Your task to perform on an android device: Open wifi settings Image 0: 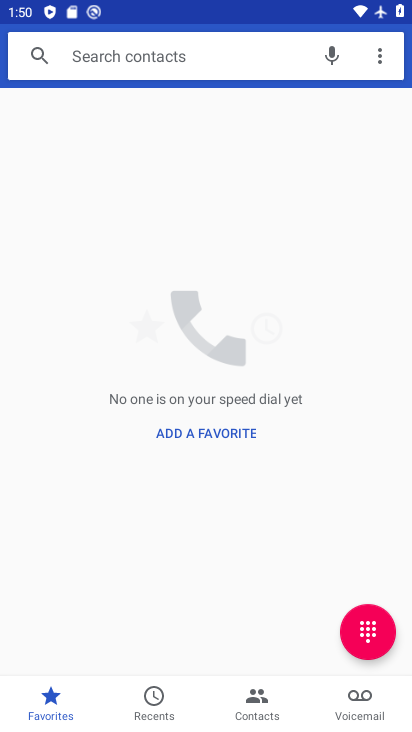
Step 0: press back button
Your task to perform on an android device: Open wifi settings Image 1: 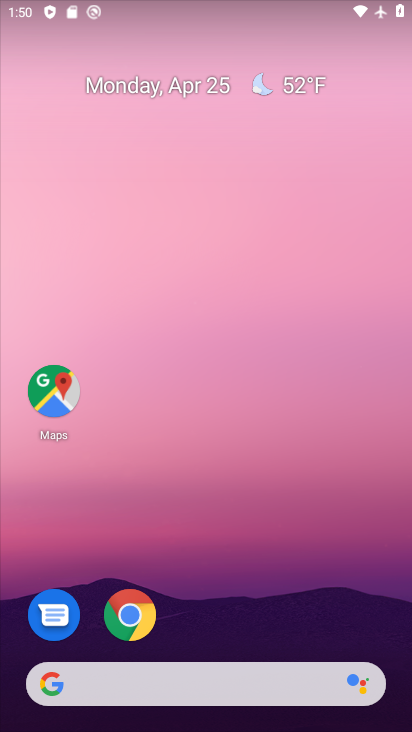
Step 1: drag from (211, 569) to (251, 51)
Your task to perform on an android device: Open wifi settings Image 2: 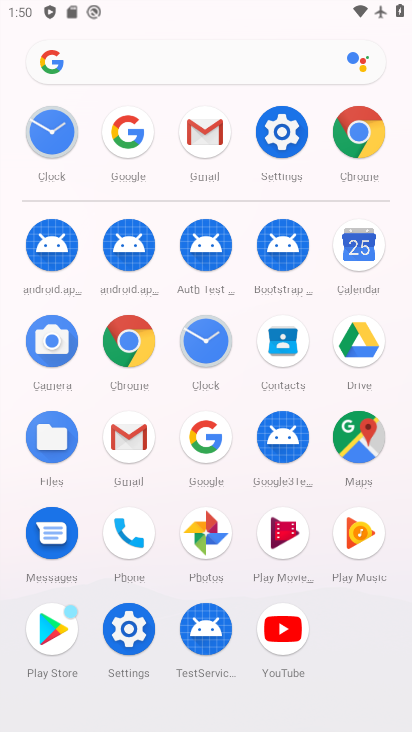
Step 2: click (283, 130)
Your task to perform on an android device: Open wifi settings Image 3: 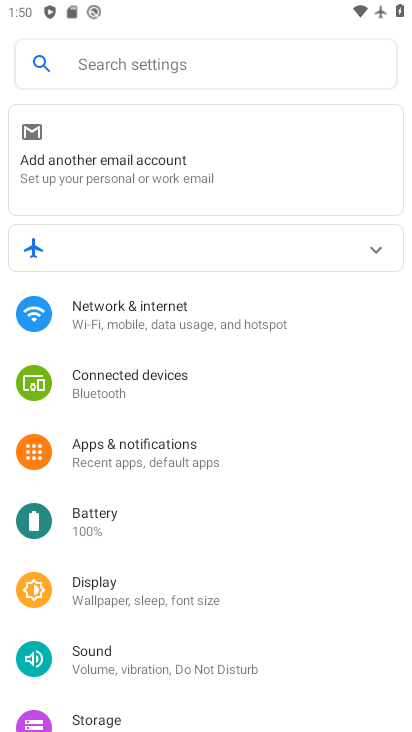
Step 3: click (164, 317)
Your task to perform on an android device: Open wifi settings Image 4: 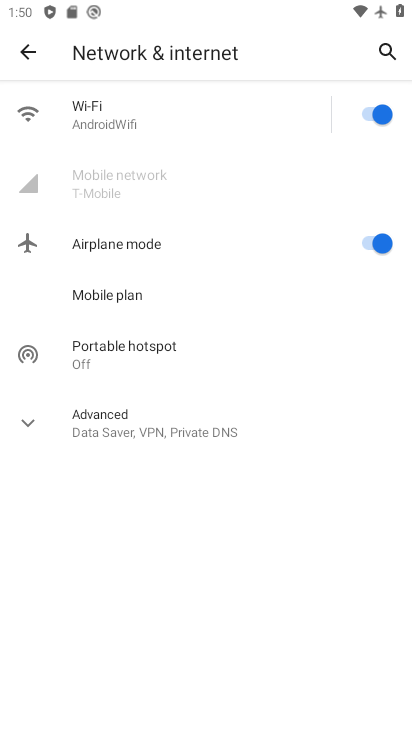
Step 4: click (132, 124)
Your task to perform on an android device: Open wifi settings Image 5: 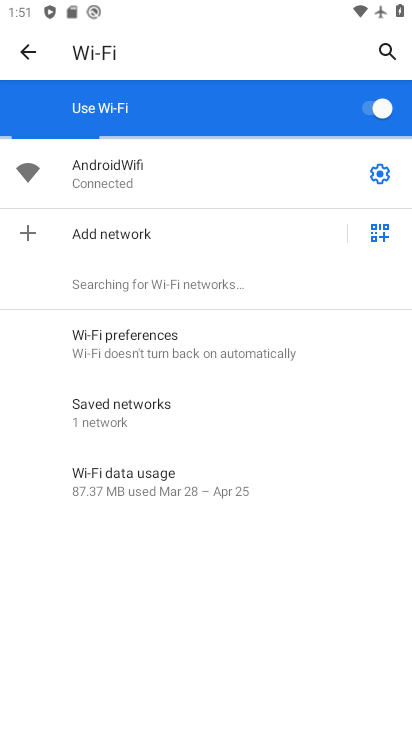
Step 5: click (380, 173)
Your task to perform on an android device: Open wifi settings Image 6: 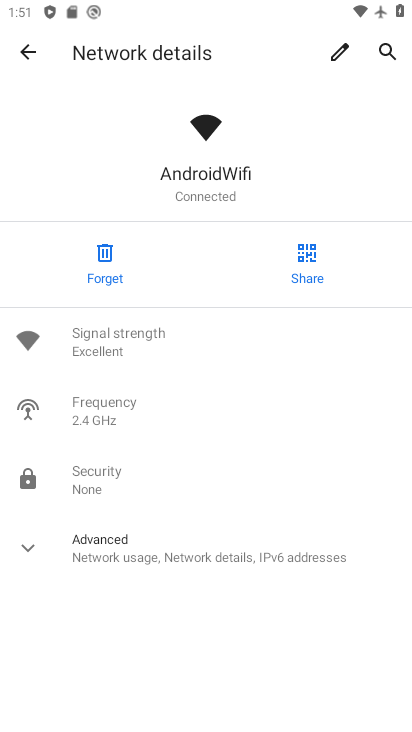
Step 6: task complete